Your task to perform on an android device: add a contact in the contacts app Image 0: 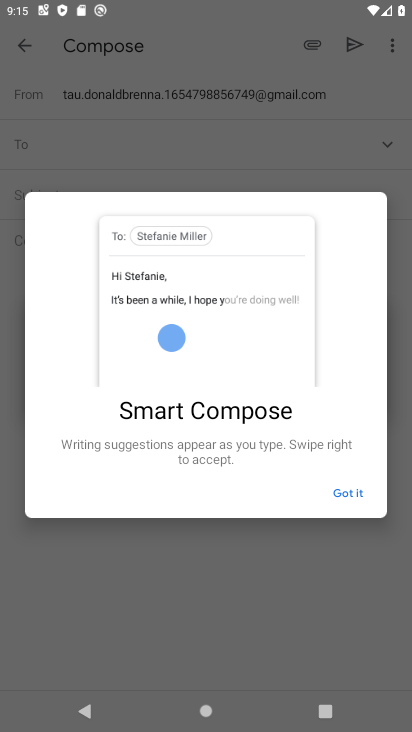
Step 0: press home button
Your task to perform on an android device: add a contact in the contacts app Image 1: 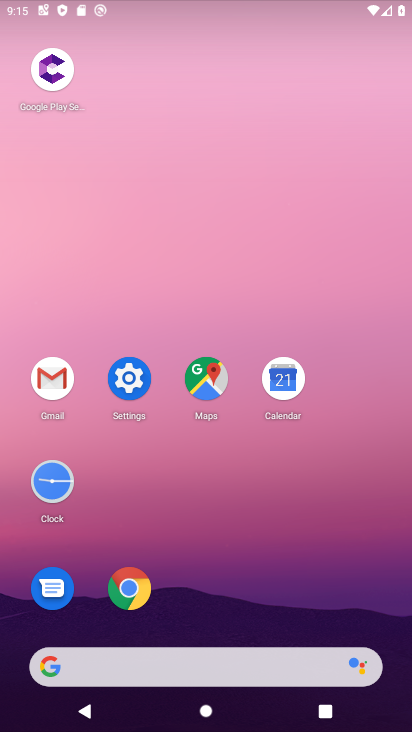
Step 1: drag from (397, 636) to (402, 245)
Your task to perform on an android device: add a contact in the contacts app Image 2: 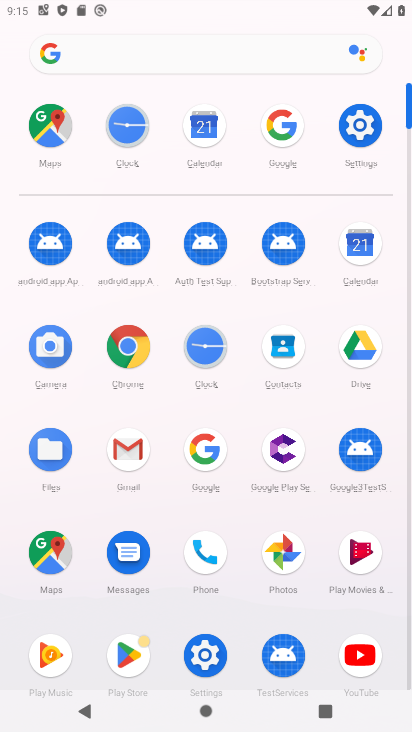
Step 2: click (285, 358)
Your task to perform on an android device: add a contact in the contacts app Image 3: 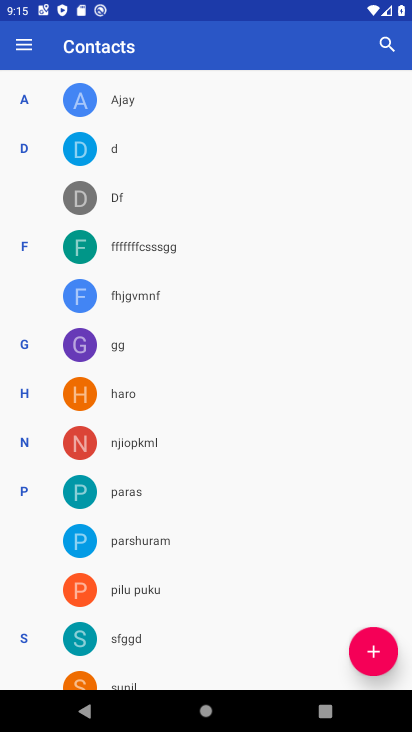
Step 3: click (364, 646)
Your task to perform on an android device: add a contact in the contacts app Image 4: 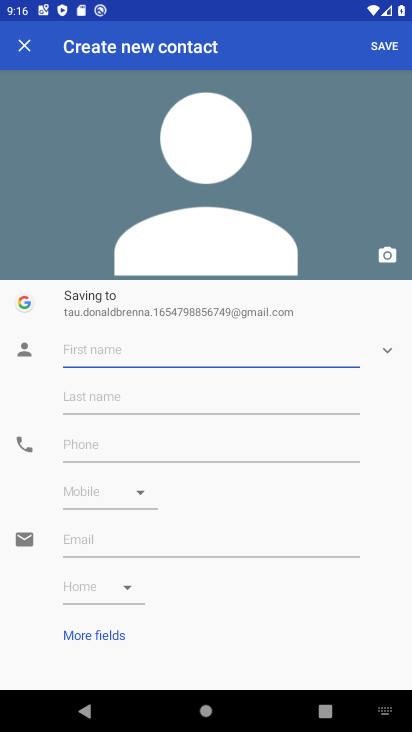
Step 4: type "vzcvsdkjchbuhc"
Your task to perform on an android device: add a contact in the contacts app Image 5: 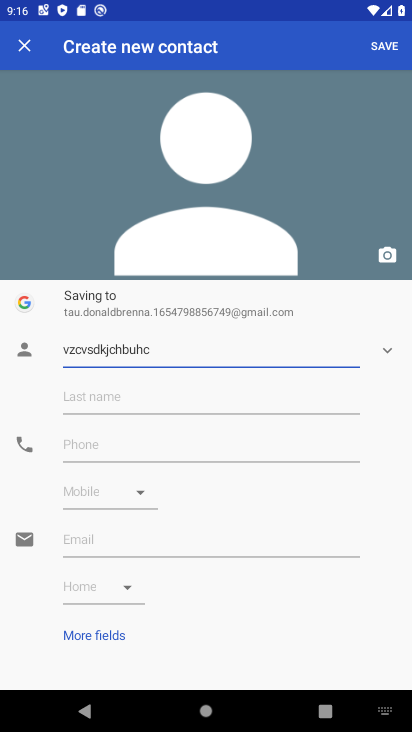
Step 5: click (123, 394)
Your task to perform on an android device: add a contact in the contacts app Image 6: 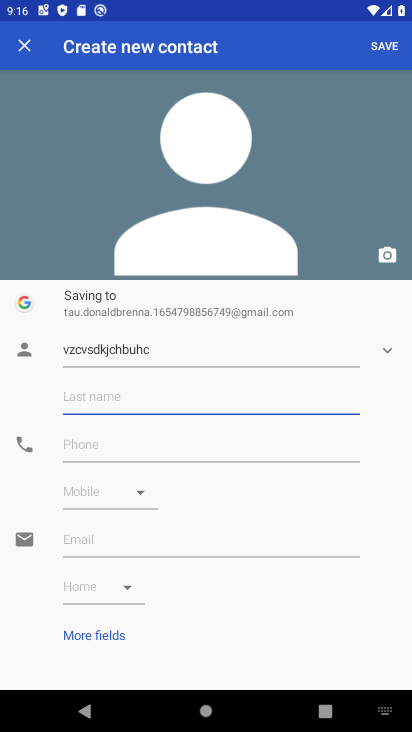
Step 6: type "sgrarhzxva"
Your task to perform on an android device: add a contact in the contacts app Image 7: 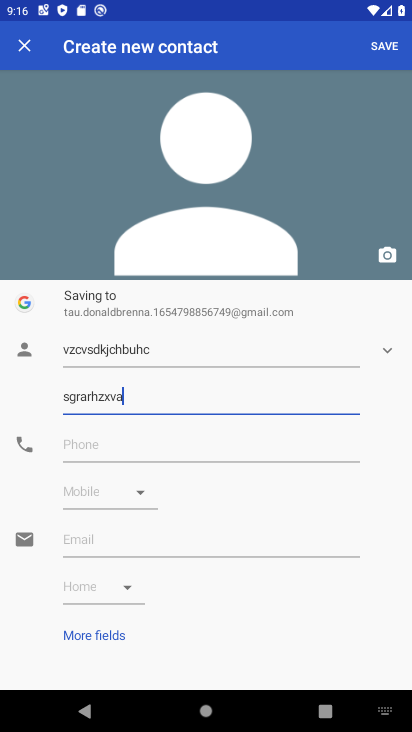
Step 7: click (107, 440)
Your task to perform on an android device: add a contact in the contacts app Image 8: 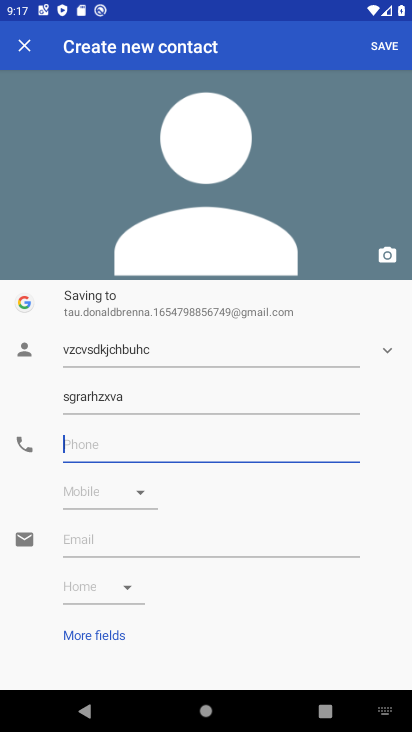
Step 8: type "26526562664626"
Your task to perform on an android device: add a contact in the contacts app Image 9: 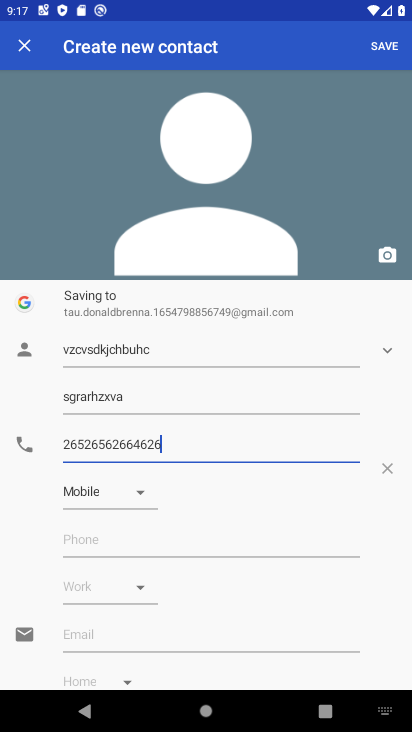
Step 9: click (383, 50)
Your task to perform on an android device: add a contact in the contacts app Image 10: 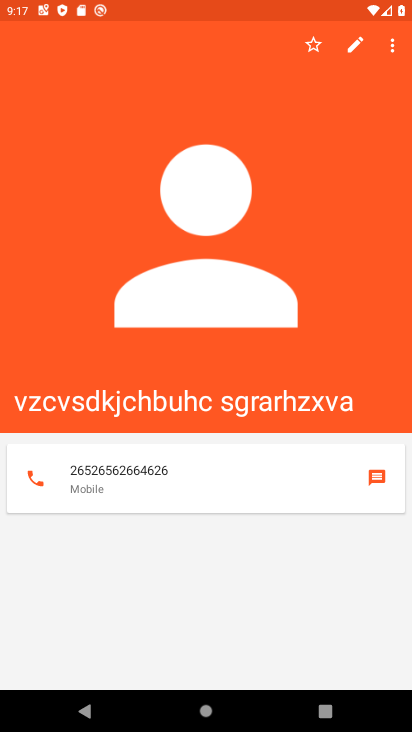
Step 10: task complete